Your task to perform on an android device: toggle javascript in the chrome app Image 0: 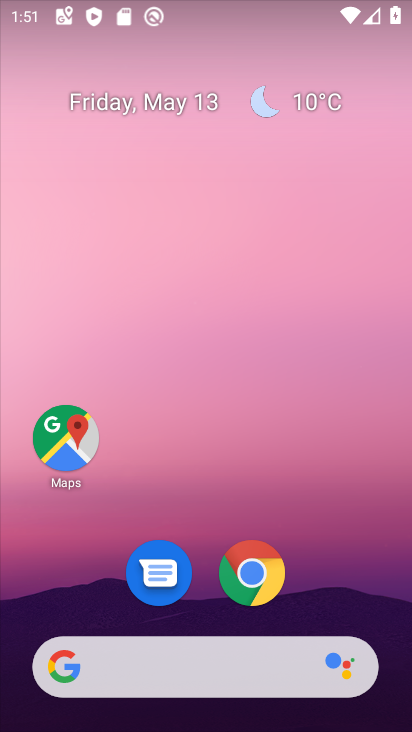
Step 0: drag from (299, 531) to (184, 33)
Your task to perform on an android device: toggle javascript in the chrome app Image 1: 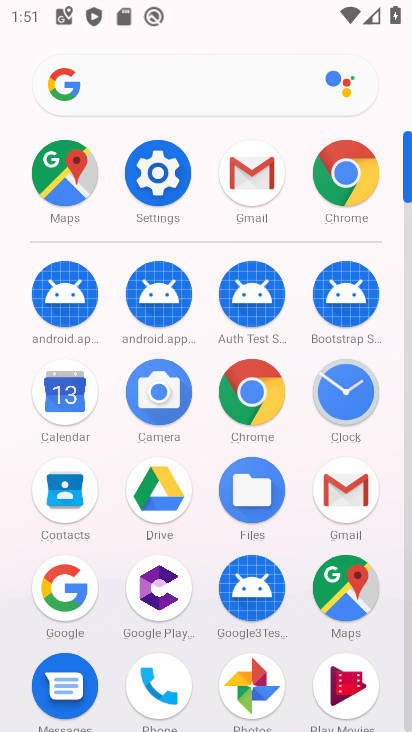
Step 1: drag from (13, 511) to (15, 191)
Your task to perform on an android device: toggle javascript in the chrome app Image 2: 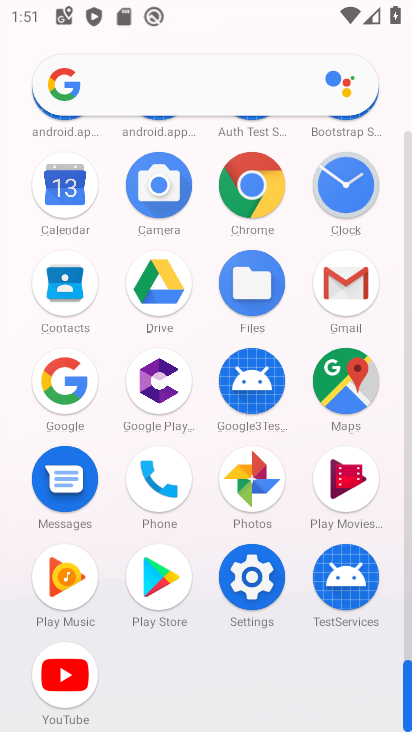
Step 2: click (246, 178)
Your task to perform on an android device: toggle javascript in the chrome app Image 3: 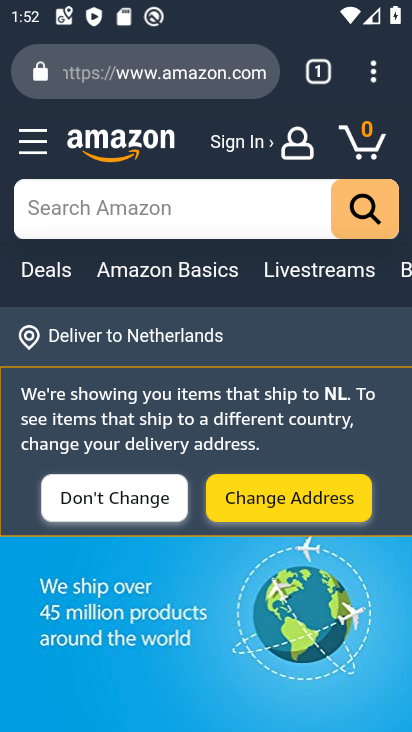
Step 3: drag from (375, 76) to (116, 574)
Your task to perform on an android device: toggle javascript in the chrome app Image 4: 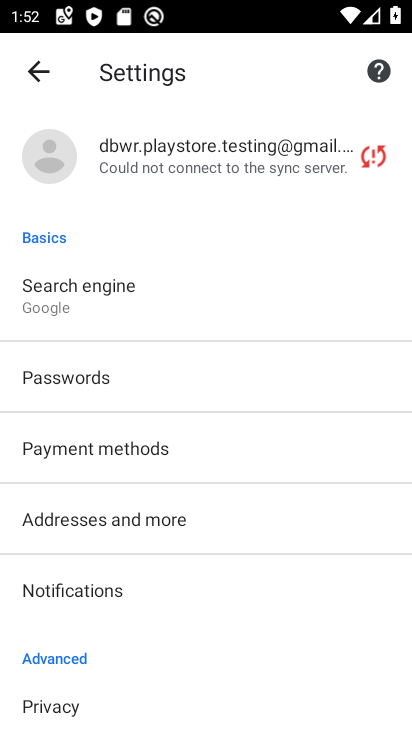
Step 4: drag from (191, 569) to (205, 173)
Your task to perform on an android device: toggle javascript in the chrome app Image 5: 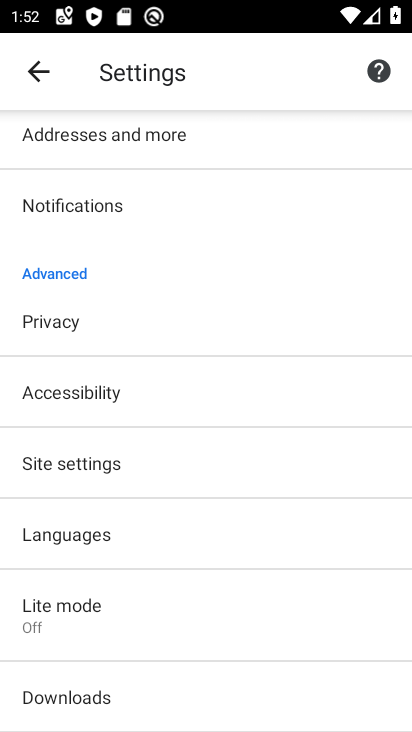
Step 5: drag from (203, 587) to (219, 200)
Your task to perform on an android device: toggle javascript in the chrome app Image 6: 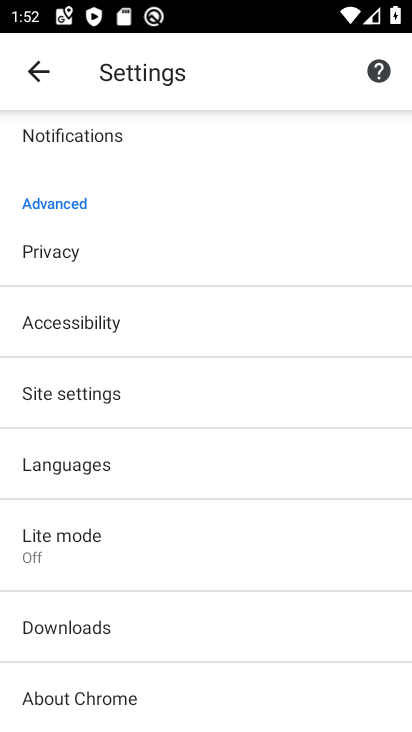
Step 6: click (133, 400)
Your task to perform on an android device: toggle javascript in the chrome app Image 7: 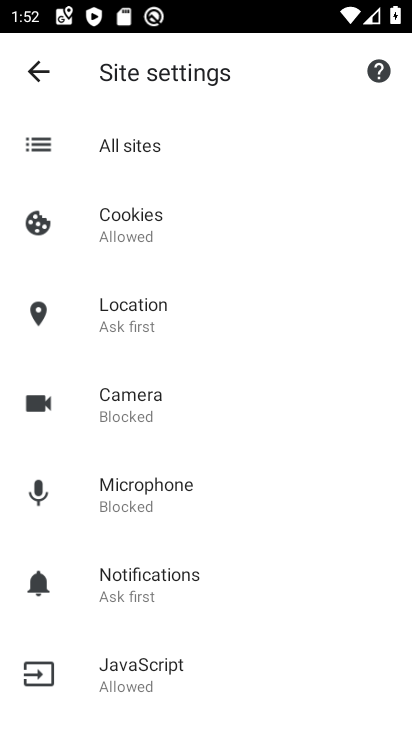
Step 7: drag from (237, 599) to (243, 153)
Your task to perform on an android device: toggle javascript in the chrome app Image 8: 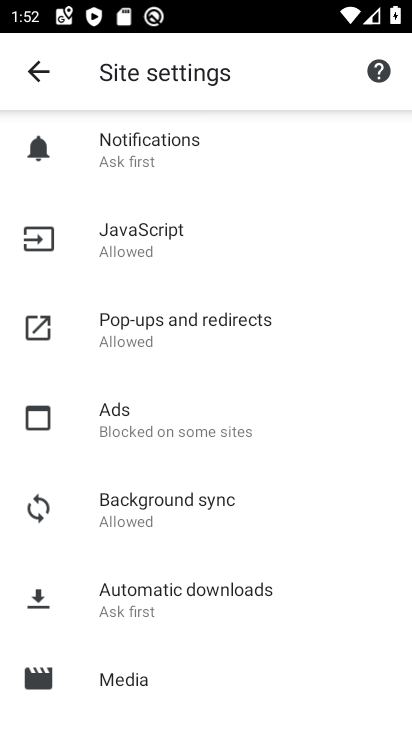
Step 8: click (188, 229)
Your task to perform on an android device: toggle javascript in the chrome app Image 9: 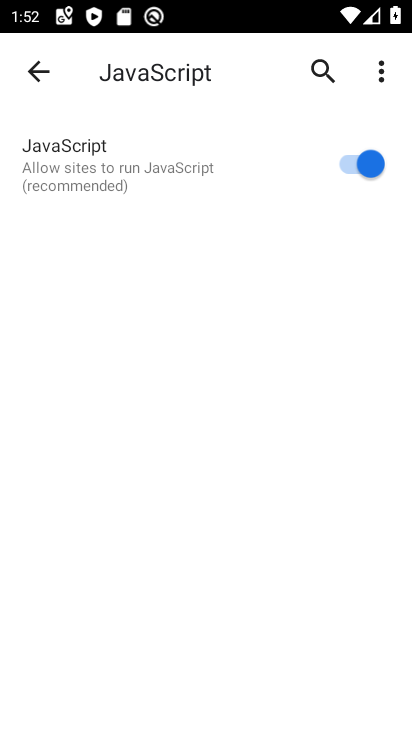
Step 9: click (336, 161)
Your task to perform on an android device: toggle javascript in the chrome app Image 10: 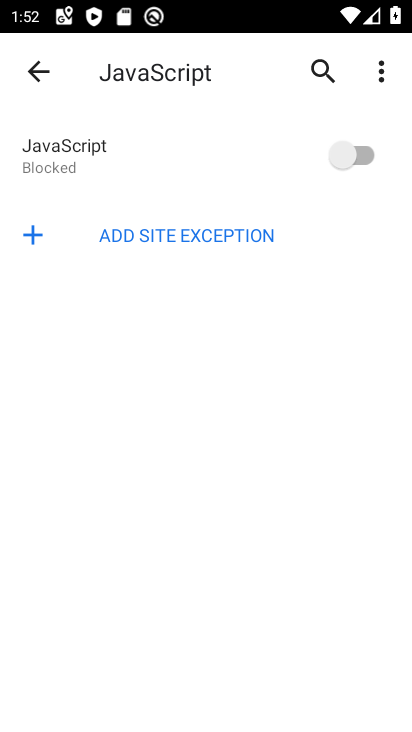
Step 10: task complete